Your task to perform on an android device: toggle airplane mode Image 0: 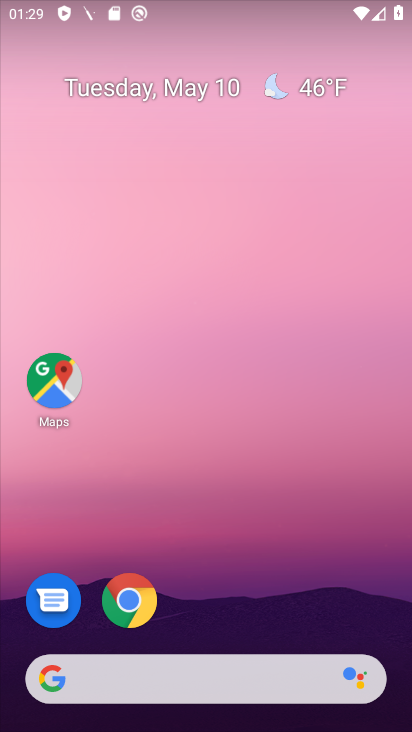
Step 0: drag from (231, 634) to (176, 69)
Your task to perform on an android device: toggle airplane mode Image 1: 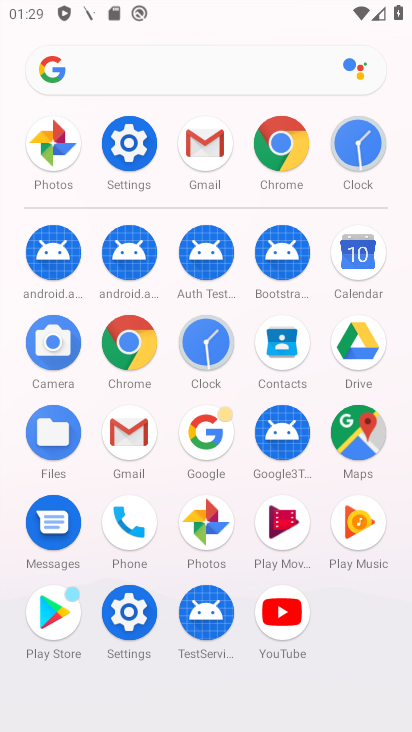
Step 1: click (107, 148)
Your task to perform on an android device: toggle airplane mode Image 2: 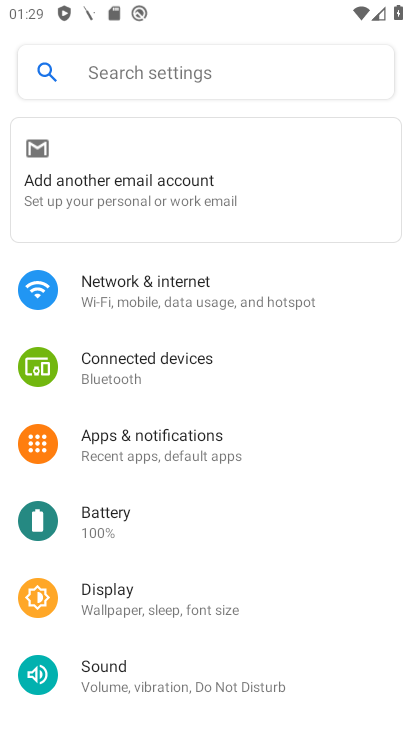
Step 2: click (155, 291)
Your task to perform on an android device: toggle airplane mode Image 3: 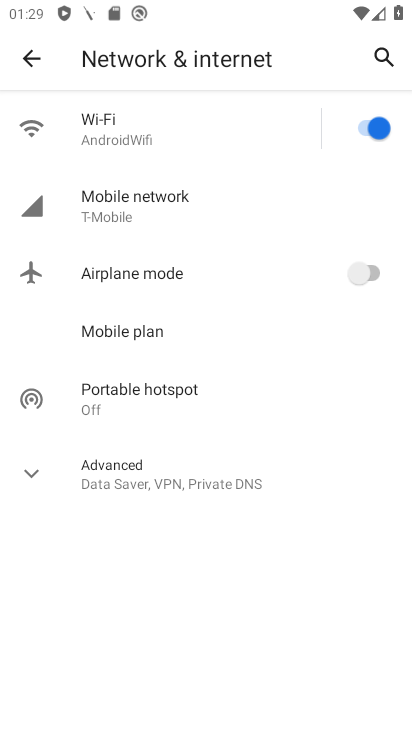
Step 3: click (358, 277)
Your task to perform on an android device: toggle airplane mode Image 4: 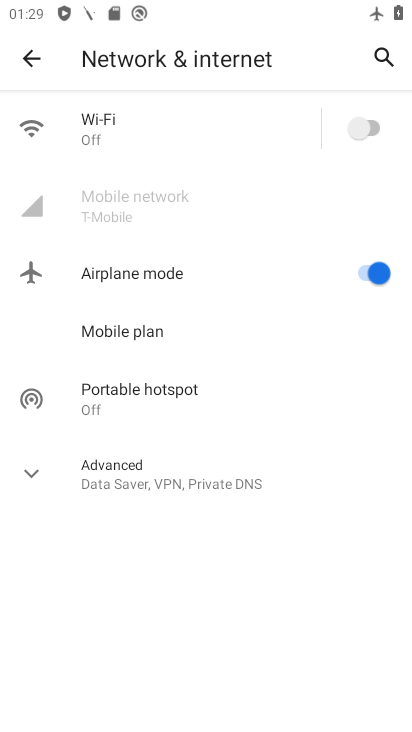
Step 4: task complete